Your task to perform on an android device: Is it going to rain this weekend? Image 0: 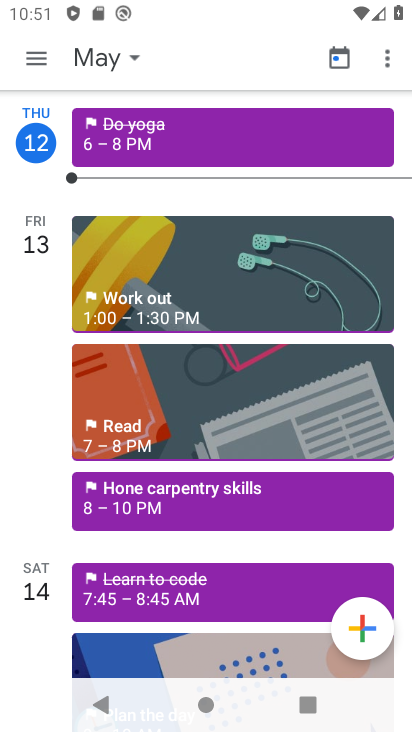
Step 0: press home button
Your task to perform on an android device: Is it going to rain this weekend? Image 1: 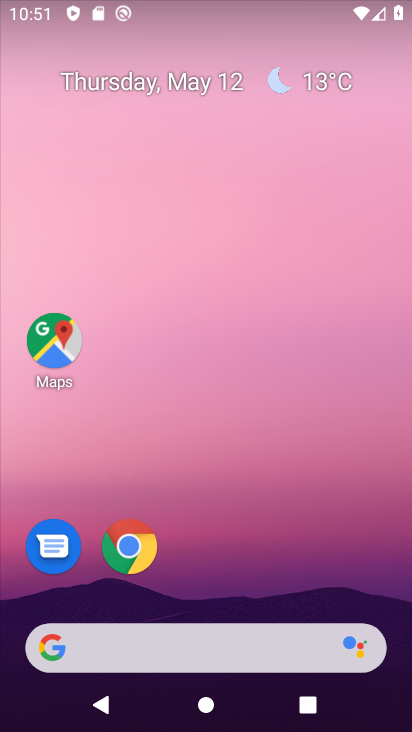
Step 1: drag from (235, 691) to (235, 261)
Your task to perform on an android device: Is it going to rain this weekend? Image 2: 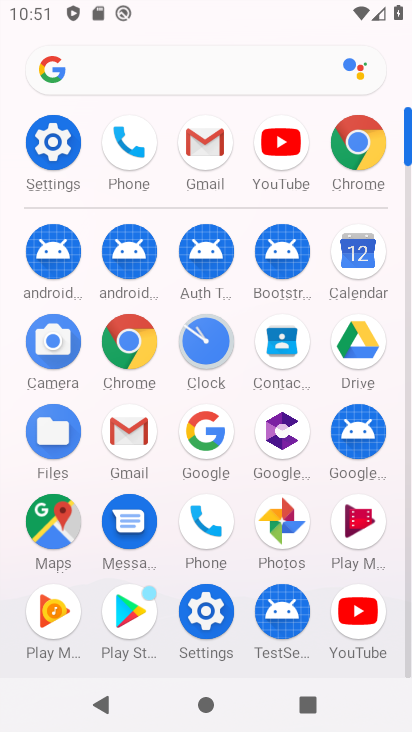
Step 2: click (152, 84)
Your task to perform on an android device: Is it going to rain this weekend? Image 3: 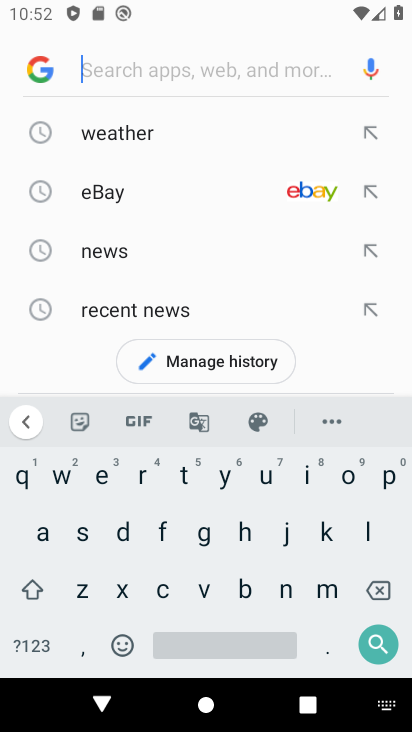
Step 3: click (142, 132)
Your task to perform on an android device: Is it going to rain this weekend? Image 4: 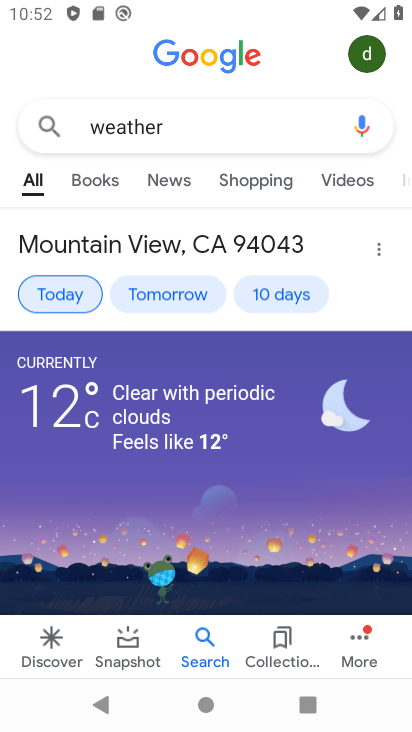
Step 4: click (257, 304)
Your task to perform on an android device: Is it going to rain this weekend? Image 5: 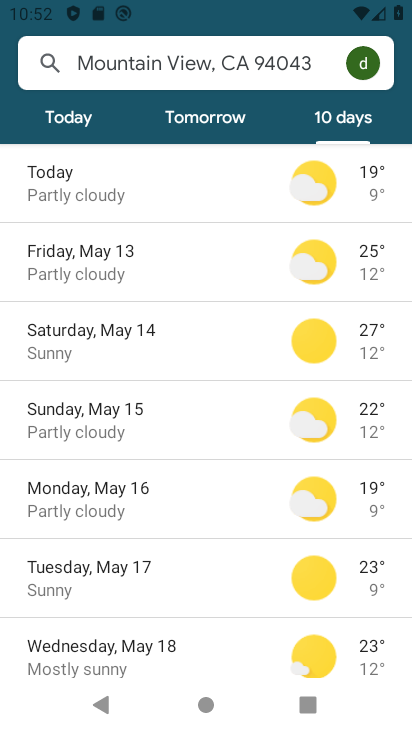
Step 5: task complete